Your task to perform on an android device: open device folders in google photos Image 0: 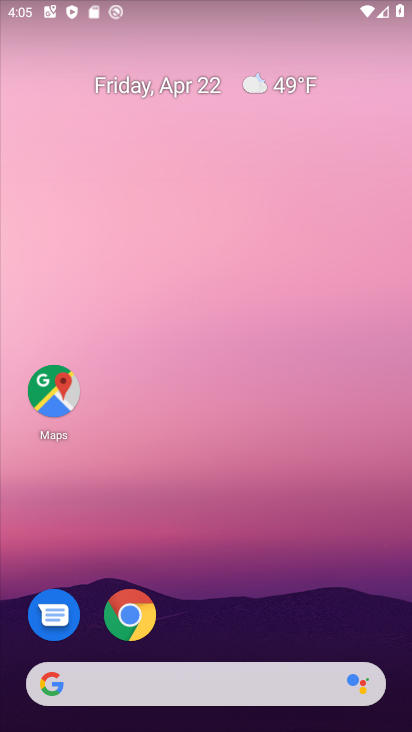
Step 0: drag from (235, 621) to (234, 182)
Your task to perform on an android device: open device folders in google photos Image 1: 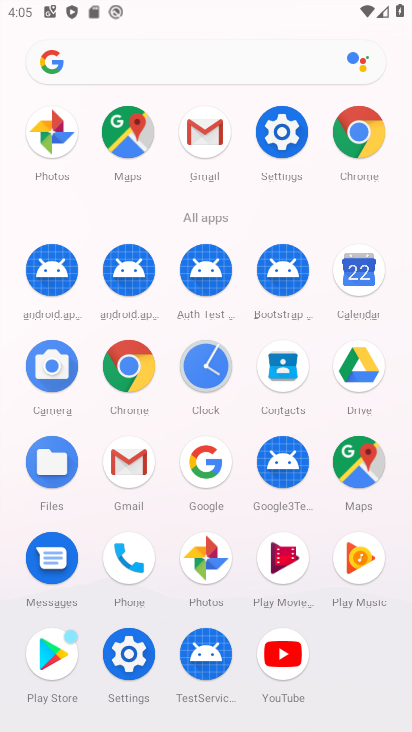
Step 1: click (49, 131)
Your task to perform on an android device: open device folders in google photos Image 2: 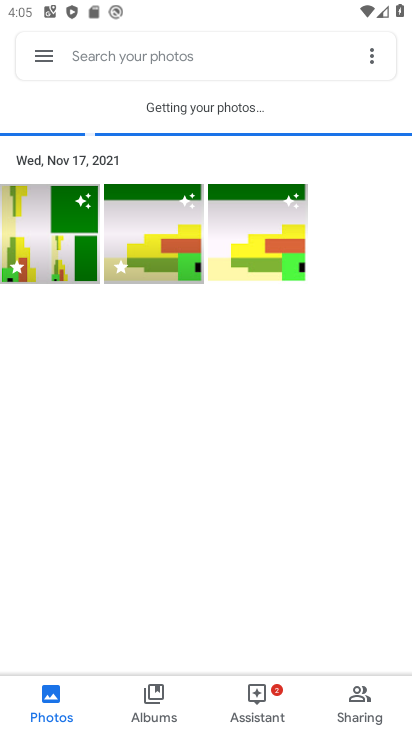
Step 2: click (44, 51)
Your task to perform on an android device: open device folders in google photos Image 3: 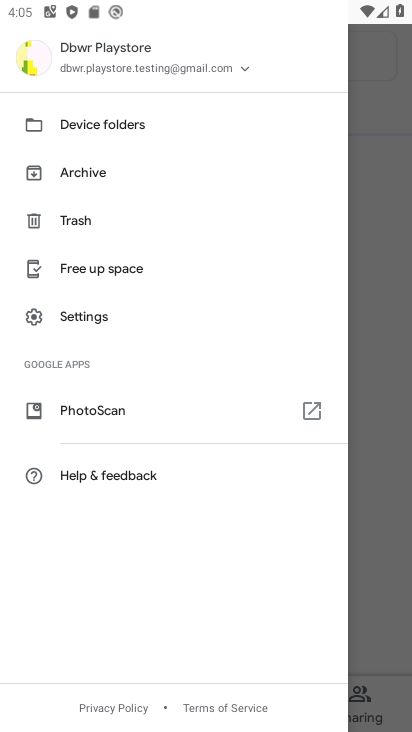
Step 3: click (89, 121)
Your task to perform on an android device: open device folders in google photos Image 4: 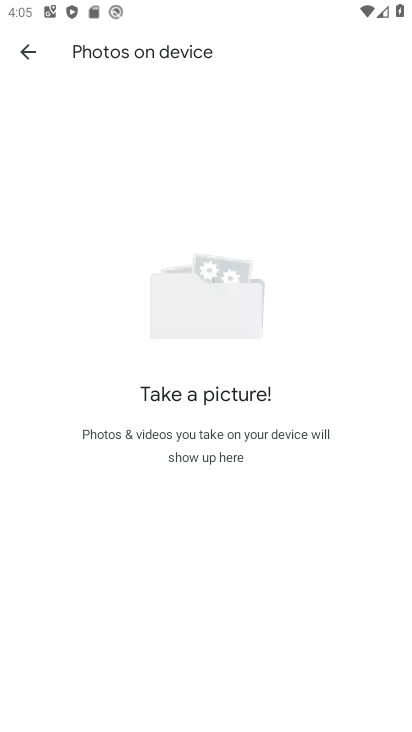
Step 4: task complete